Your task to perform on an android device: Search for Mexican restaurants on Maps Image 0: 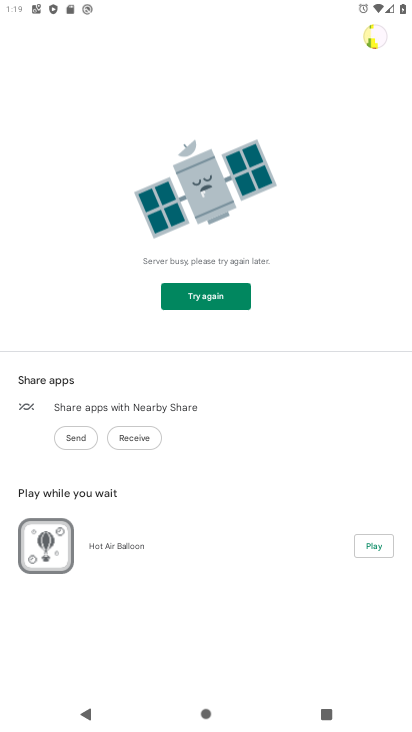
Step 0: press home button
Your task to perform on an android device: Search for Mexican restaurants on Maps Image 1: 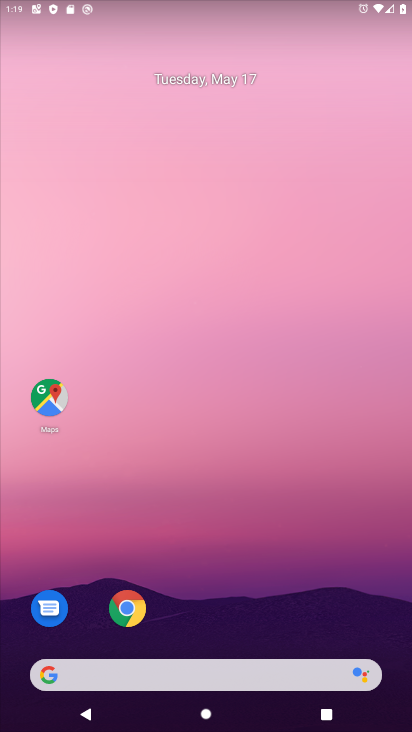
Step 1: click (48, 389)
Your task to perform on an android device: Search for Mexican restaurants on Maps Image 2: 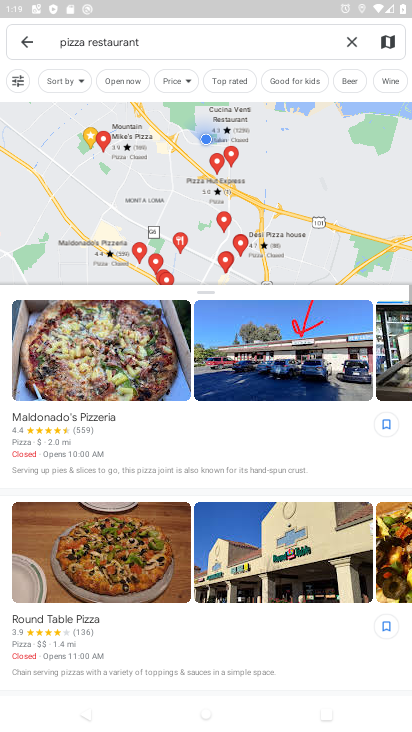
Step 2: click (357, 43)
Your task to perform on an android device: Search for Mexican restaurants on Maps Image 3: 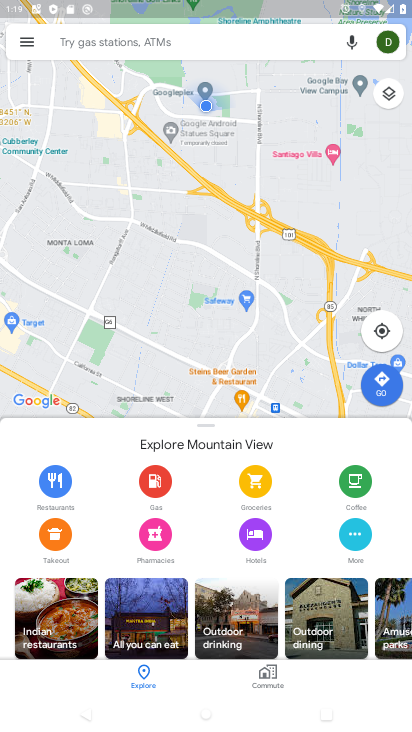
Step 3: click (180, 40)
Your task to perform on an android device: Search for Mexican restaurants on Maps Image 4: 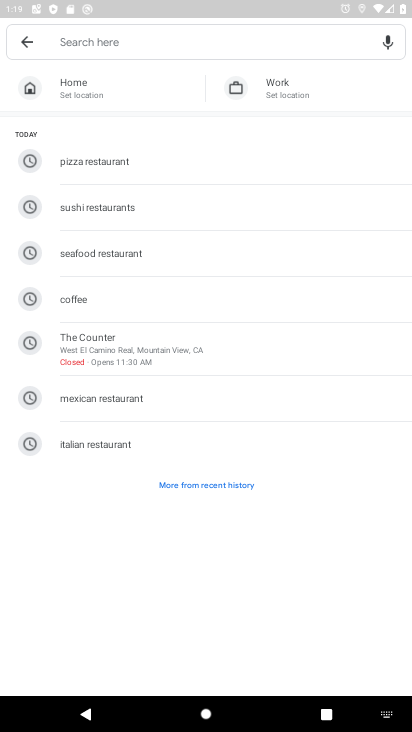
Step 4: click (145, 406)
Your task to perform on an android device: Search for Mexican restaurants on Maps Image 5: 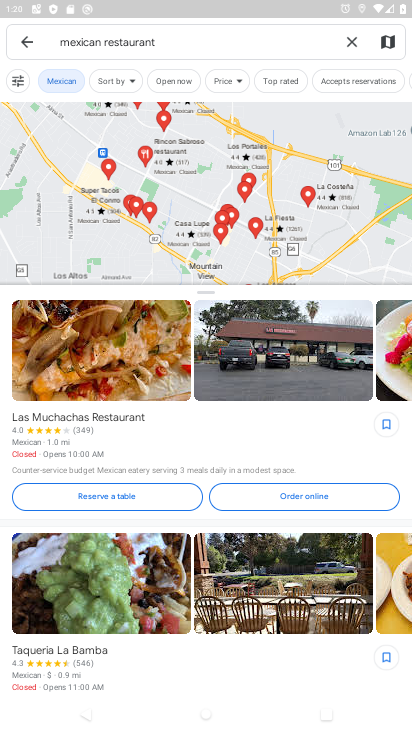
Step 5: task complete